Your task to perform on an android device: Show the shopping cart on ebay. Search for "macbook pro 15 inch" on ebay, select the first entry, add it to the cart, then select checkout. Image 0: 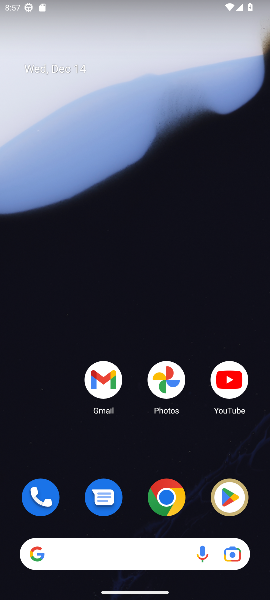
Step 0: click (160, 505)
Your task to perform on an android device: Show the shopping cart on ebay. Search for "macbook pro 15 inch" on ebay, select the first entry, add it to the cart, then select checkout. Image 1: 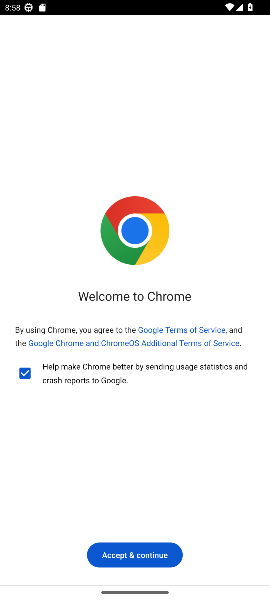
Step 1: click (124, 561)
Your task to perform on an android device: Show the shopping cart on ebay. Search for "macbook pro 15 inch" on ebay, select the first entry, add it to the cart, then select checkout. Image 2: 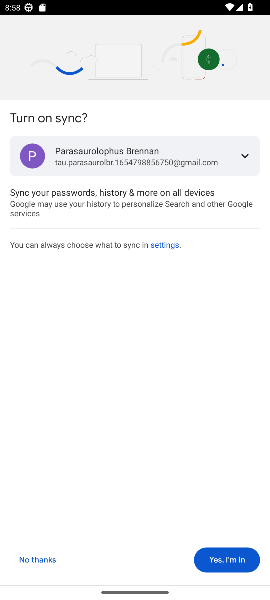
Step 2: click (218, 558)
Your task to perform on an android device: Show the shopping cart on ebay. Search for "macbook pro 15 inch" on ebay, select the first entry, add it to the cart, then select checkout. Image 3: 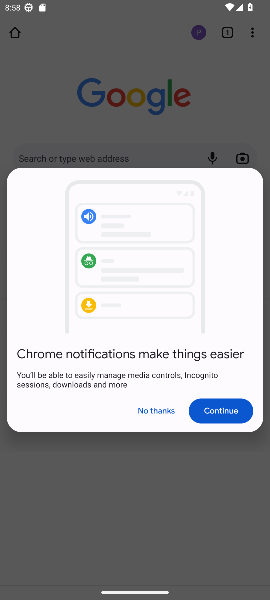
Step 3: click (216, 414)
Your task to perform on an android device: Show the shopping cart on ebay. Search for "macbook pro 15 inch" on ebay, select the first entry, add it to the cart, then select checkout. Image 4: 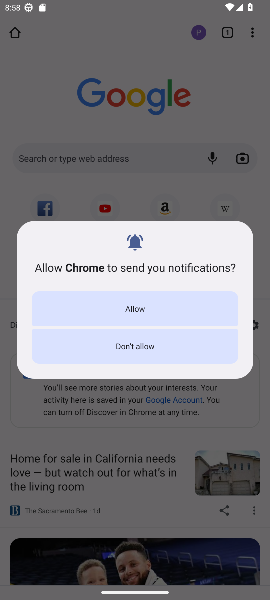
Step 4: click (132, 312)
Your task to perform on an android device: Show the shopping cart on ebay. Search for "macbook pro 15 inch" on ebay, select the first entry, add it to the cart, then select checkout. Image 5: 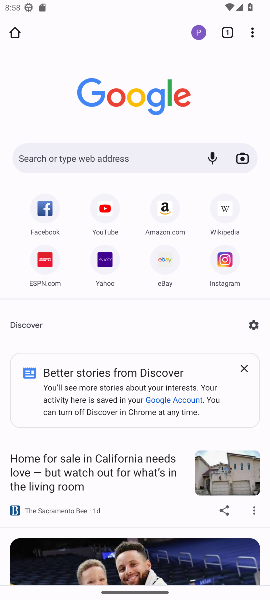
Step 5: click (84, 156)
Your task to perform on an android device: Show the shopping cart on ebay. Search for "macbook pro 15 inch" on ebay, select the first entry, add it to the cart, then select checkout. Image 6: 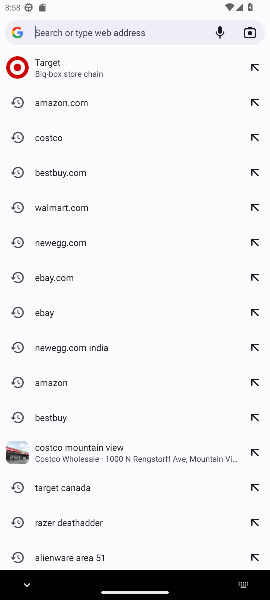
Step 6: type "ebay"
Your task to perform on an android device: Show the shopping cart on ebay. Search for "macbook pro 15 inch" on ebay, select the first entry, add it to the cart, then select checkout. Image 7: 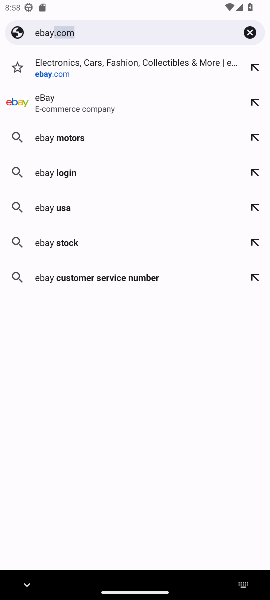
Step 7: click (99, 71)
Your task to perform on an android device: Show the shopping cart on ebay. Search for "macbook pro 15 inch" on ebay, select the first entry, add it to the cart, then select checkout. Image 8: 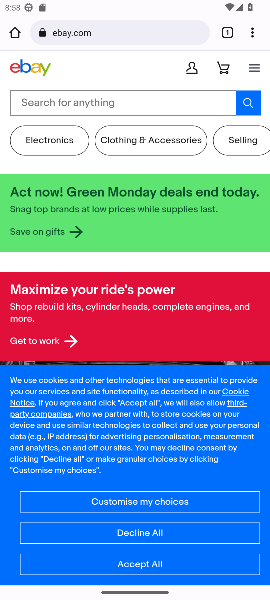
Step 8: click (131, 562)
Your task to perform on an android device: Show the shopping cart on ebay. Search for "macbook pro 15 inch" on ebay, select the first entry, add it to the cart, then select checkout. Image 9: 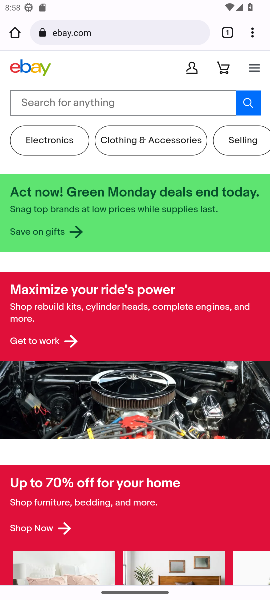
Step 9: click (219, 68)
Your task to perform on an android device: Show the shopping cart on ebay. Search for "macbook pro 15 inch" on ebay, select the first entry, add it to the cart, then select checkout. Image 10: 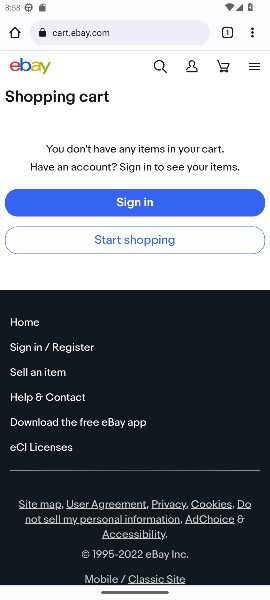
Step 10: click (161, 73)
Your task to perform on an android device: Show the shopping cart on ebay. Search for "macbook pro 15 inch" on ebay, select the first entry, add it to the cart, then select checkout. Image 11: 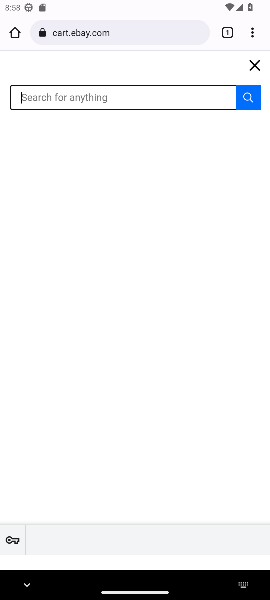
Step 11: type "macbook pro 15 inch"
Your task to perform on an android device: Show the shopping cart on ebay. Search for "macbook pro 15 inch" on ebay, select the first entry, add it to the cart, then select checkout. Image 12: 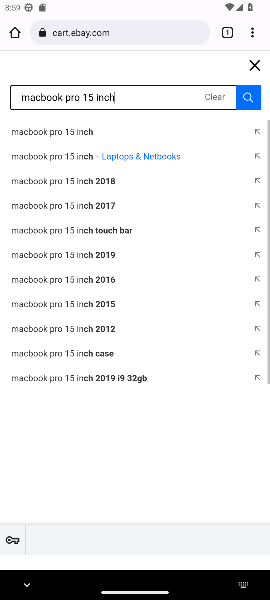
Step 12: press enter
Your task to perform on an android device: Show the shopping cart on ebay. Search for "macbook pro 15 inch" on ebay, select the first entry, add it to the cart, then select checkout. Image 13: 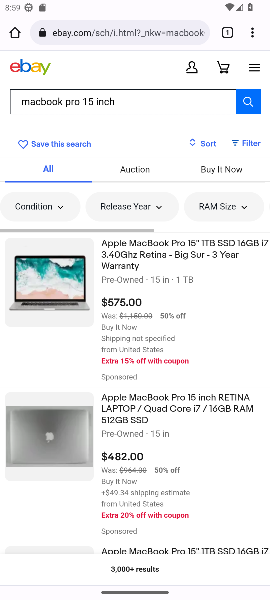
Step 13: click (113, 259)
Your task to perform on an android device: Show the shopping cart on ebay. Search for "macbook pro 15 inch" on ebay, select the first entry, add it to the cart, then select checkout. Image 14: 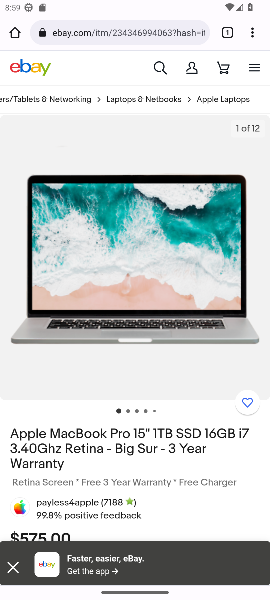
Step 14: drag from (120, 396) to (151, 154)
Your task to perform on an android device: Show the shopping cart on ebay. Search for "macbook pro 15 inch" on ebay, select the first entry, add it to the cart, then select checkout. Image 15: 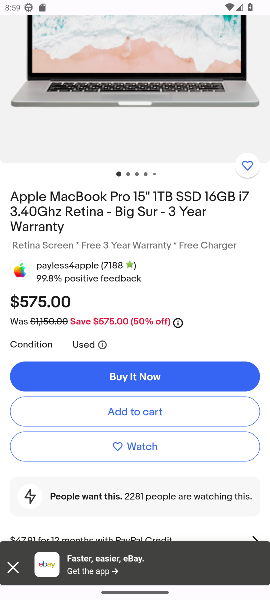
Step 15: click (124, 410)
Your task to perform on an android device: Show the shopping cart on ebay. Search for "macbook pro 15 inch" on ebay, select the first entry, add it to the cart, then select checkout. Image 16: 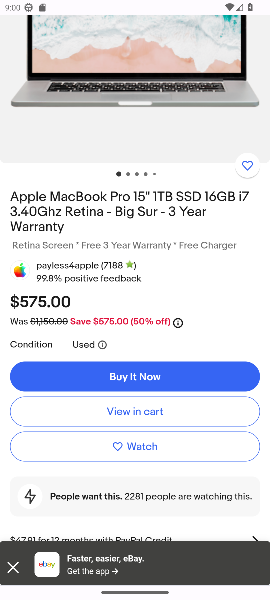
Step 16: click (124, 410)
Your task to perform on an android device: Show the shopping cart on ebay. Search for "macbook pro 15 inch" on ebay, select the first entry, add it to the cart, then select checkout. Image 17: 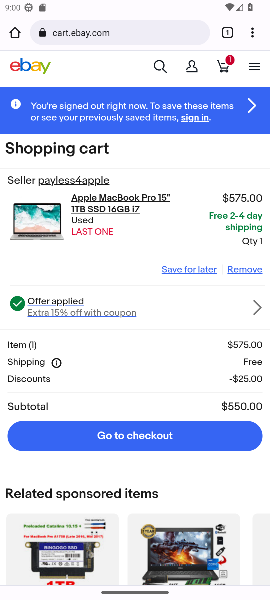
Step 17: click (107, 429)
Your task to perform on an android device: Show the shopping cart on ebay. Search for "macbook pro 15 inch" on ebay, select the first entry, add it to the cart, then select checkout. Image 18: 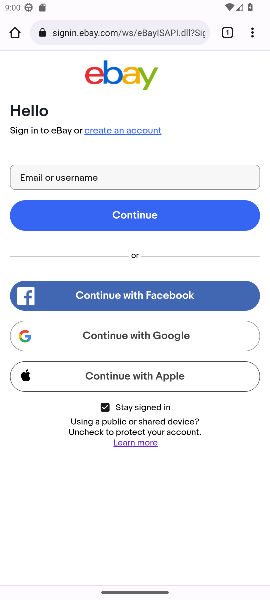
Step 18: task complete